Your task to perform on an android device: What's on my calendar tomorrow? Image 0: 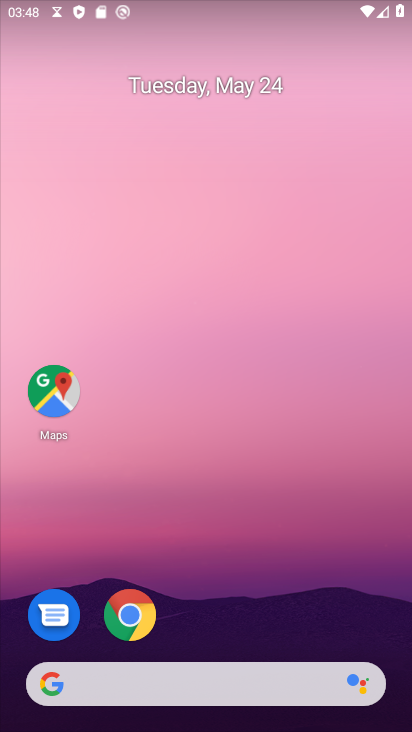
Step 0: drag from (246, 504) to (191, 3)
Your task to perform on an android device: What's on my calendar tomorrow? Image 1: 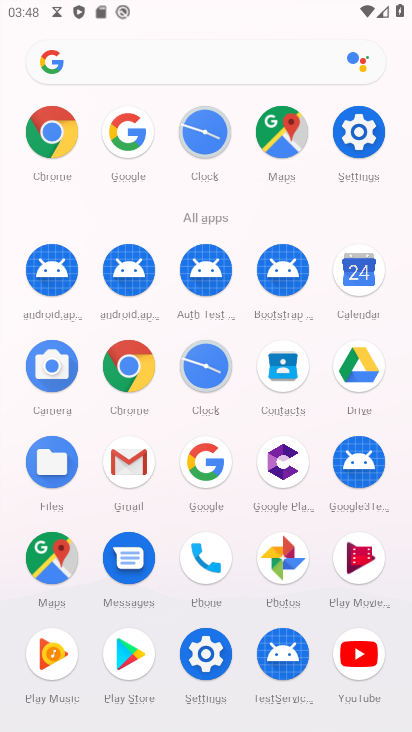
Step 1: click (356, 256)
Your task to perform on an android device: What's on my calendar tomorrow? Image 2: 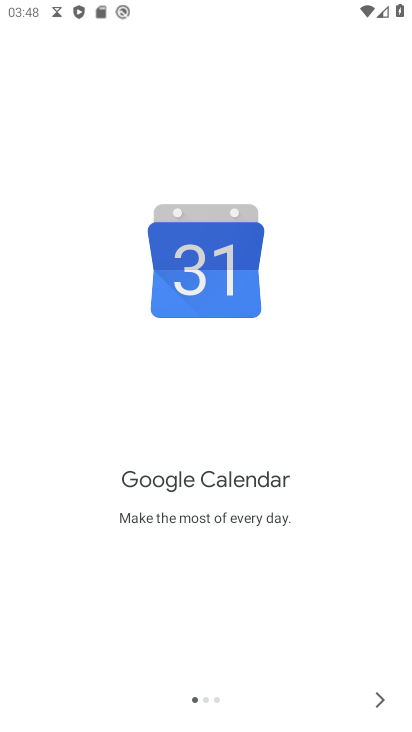
Step 2: click (382, 701)
Your task to perform on an android device: What's on my calendar tomorrow? Image 3: 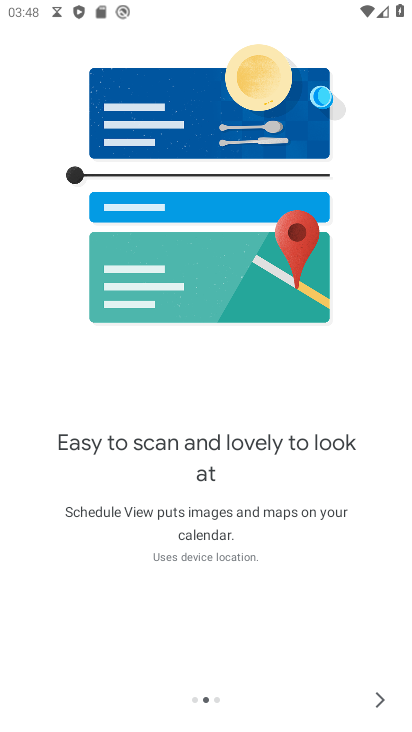
Step 3: click (383, 702)
Your task to perform on an android device: What's on my calendar tomorrow? Image 4: 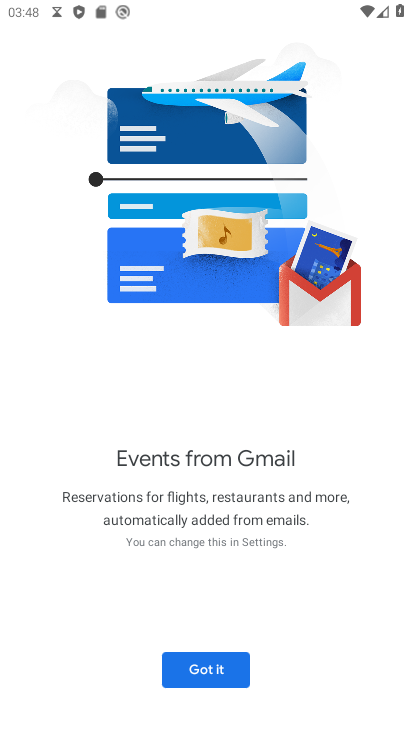
Step 4: click (220, 661)
Your task to perform on an android device: What's on my calendar tomorrow? Image 5: 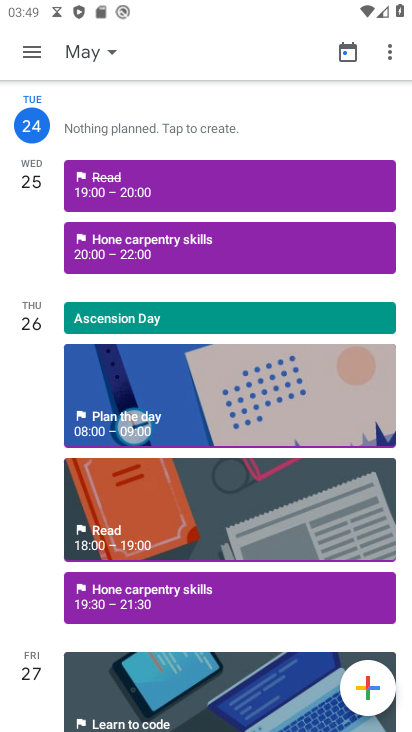
Step 5: drag from (274, 112) to (1, 125)
Your task to perform on an android device: What's on my calendar tomorrow? Image 6: 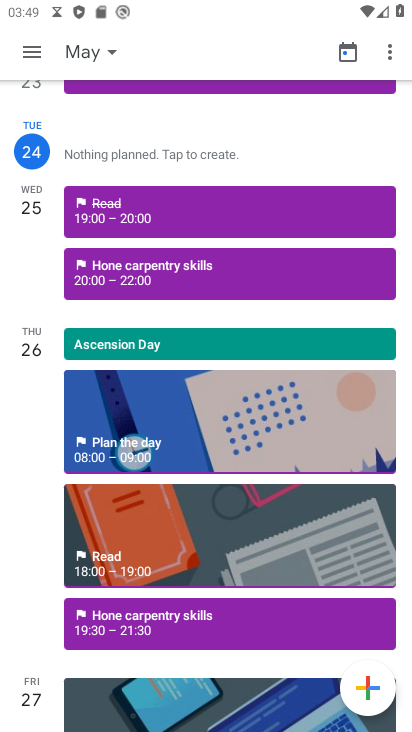
Step 6: click (34, 172)
Your task to perform on an android device: What's on my calendar tomorrow? Image 7: 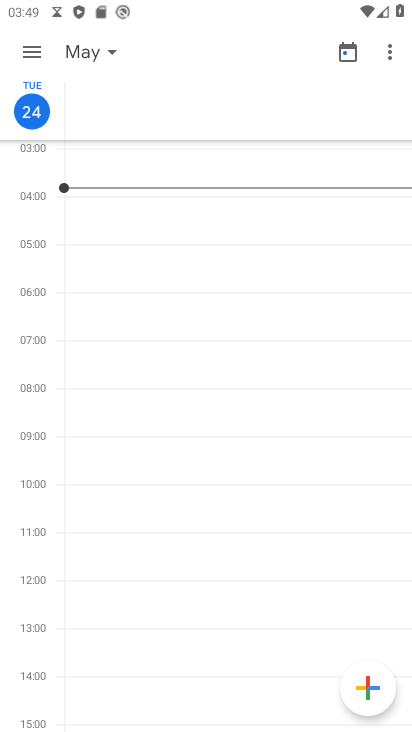
Step 7: task complete